Your task to perform on an android device: allow cookies in the chrome app Image 0: 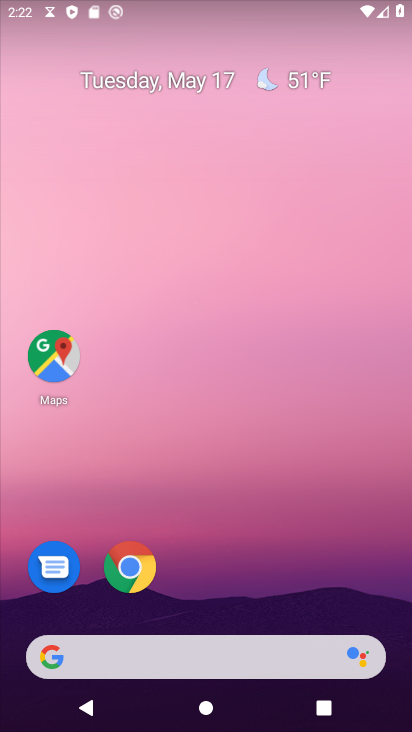
Step 0: click (132, 550)
Your task to perform on an android device: allow cookies in the chrome app Image 1: 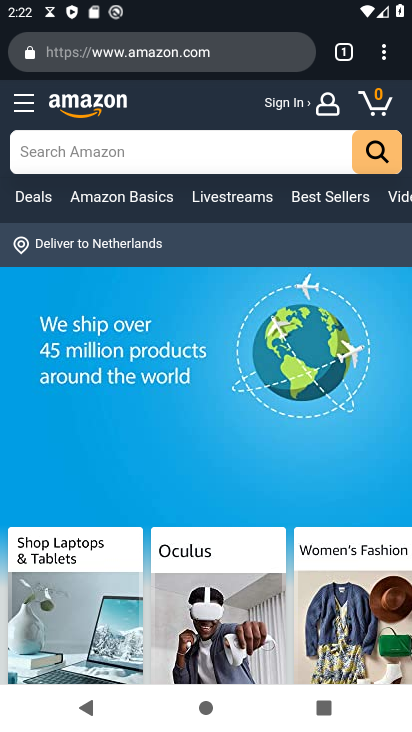
Step 1: click (387, 60)
Your task to perform on an android device: allow cookies in the chrome app Image 2: 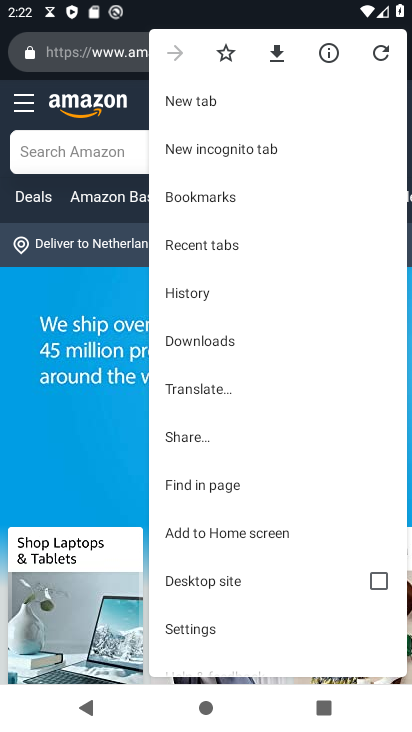
Step 2: click (177, 625)
Your task to perform on an android device: allow cookies in the chrome app Image 3: 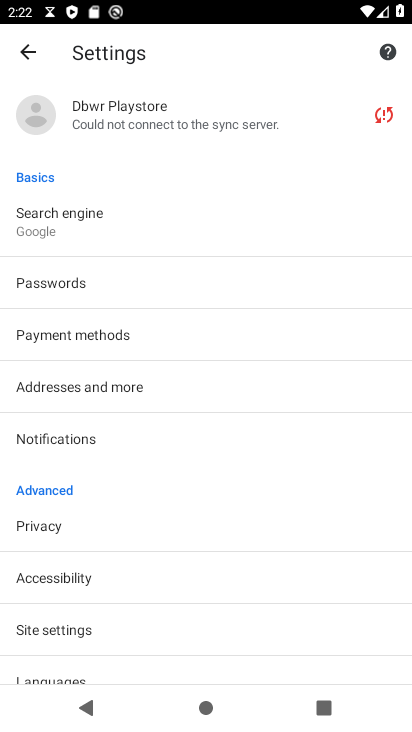
Step 3: click (104, 622)
Your task to perform on an android device: allow cookies in the chrome app Image 4: 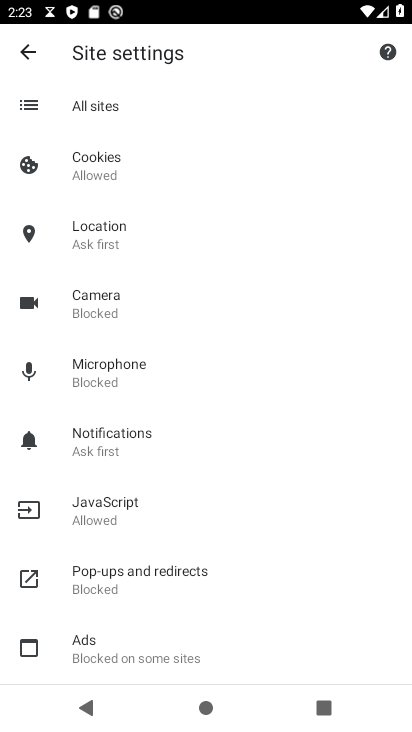
Step 4: click (115, 154)
Your task to perform on an android device: allow cookies in the chrome app Image 5: 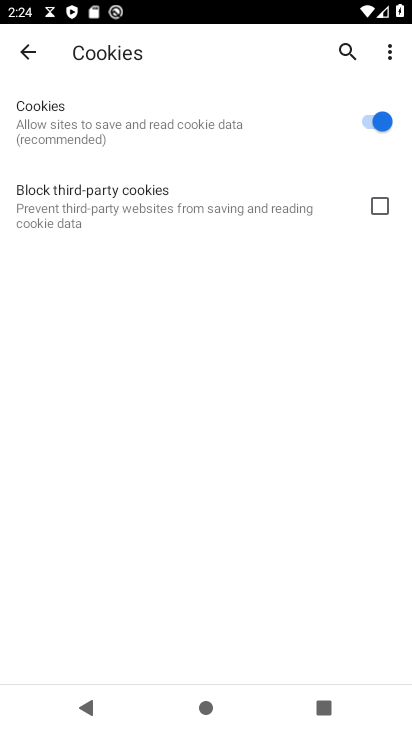
Step 5: task complete